Your task to perform on an android device: Show me recent news Image 0: 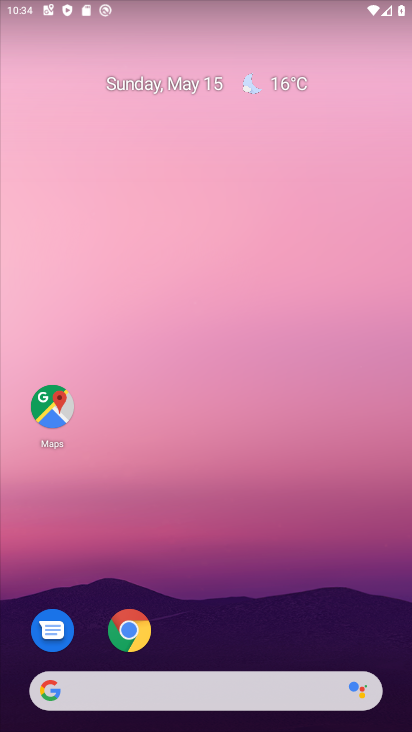
Step 0: drag from (215, 635) to (251, 219)
Your task to perform on an android device: Show me recent news Image 1: 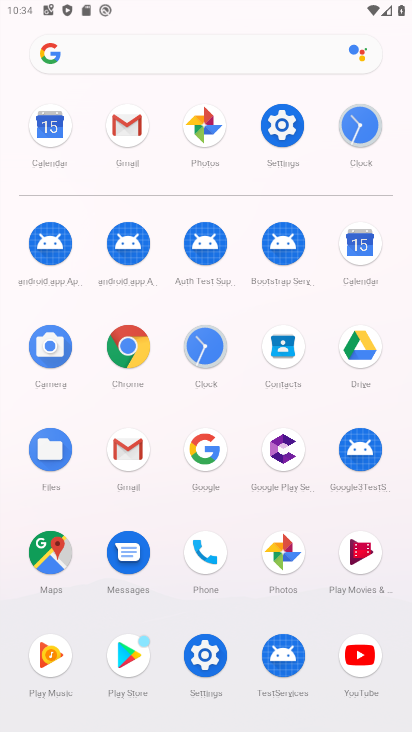
Step 1: click (185, 454)
Your task to perform on an android device: Show me recent news Image 2: 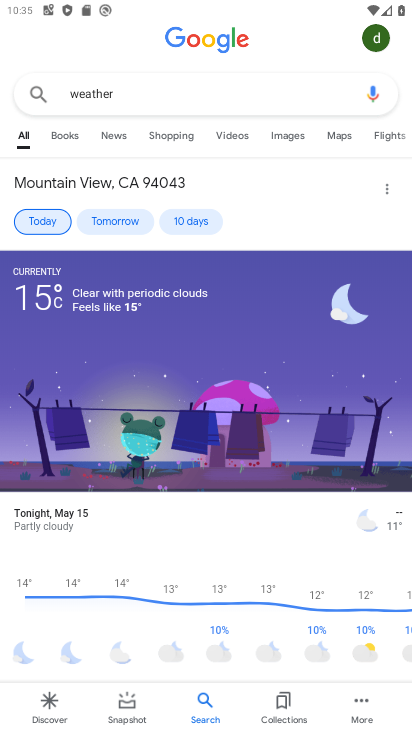
Step 2: click (162, 89)
Your task to perform on an android device: Show me recent news Image 3: 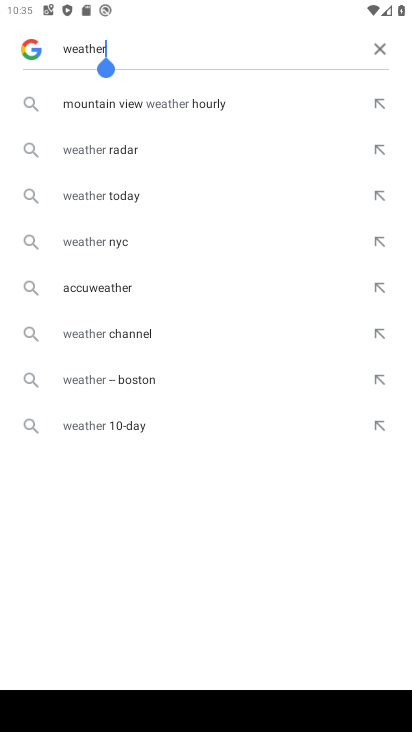
Step 3: click (374, 43)
Your task to perform on an android device: Show me recent news Image 4: 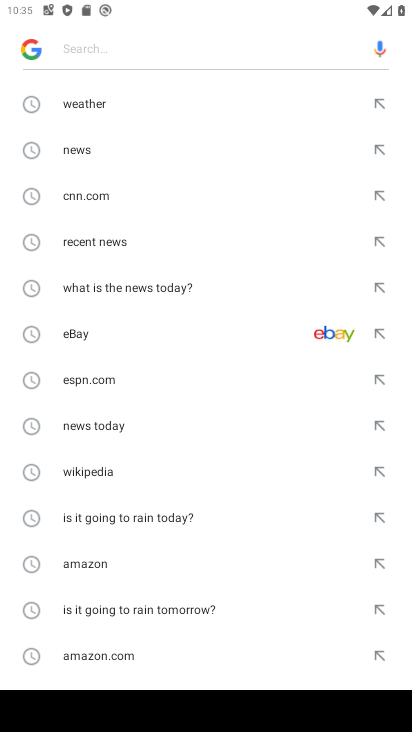
Step 4: click (107, 148)
Your task to perform on an android device: Show me recent news Image 5: 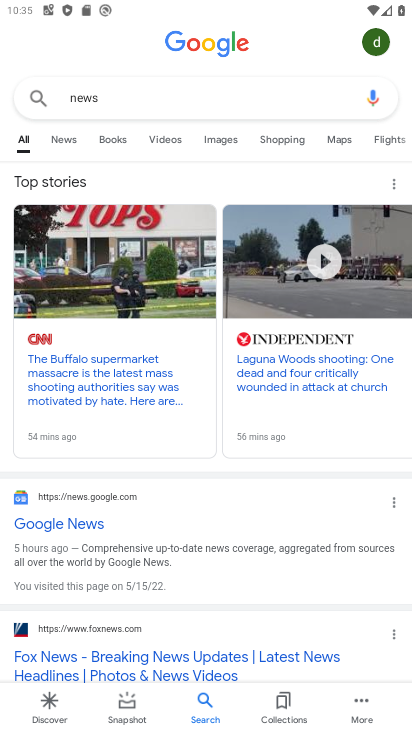
Step 5: click (66, 140)
Your task to perform on an android device: Show me recent news Image 6: 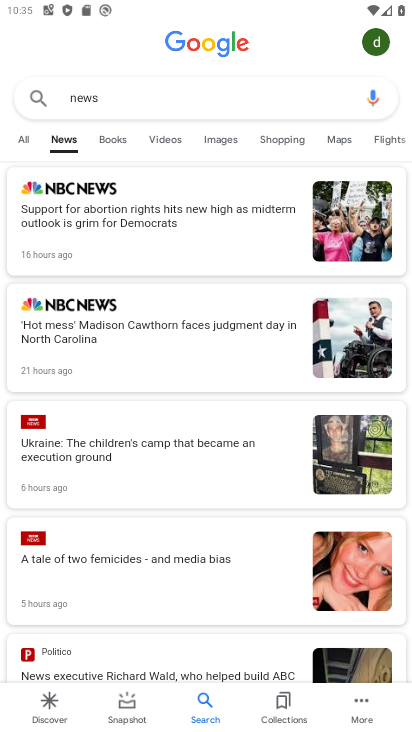
Step 6: task complete